Your task to perform on an android device: What is the recent news? Image 0: 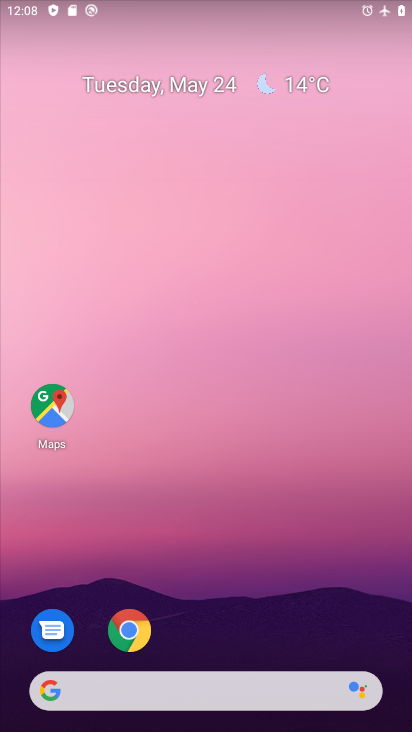
Step 0: drag from (377, 616) to (378, 206)
Your task to perform on an android device: What is the recent news? Image 1: 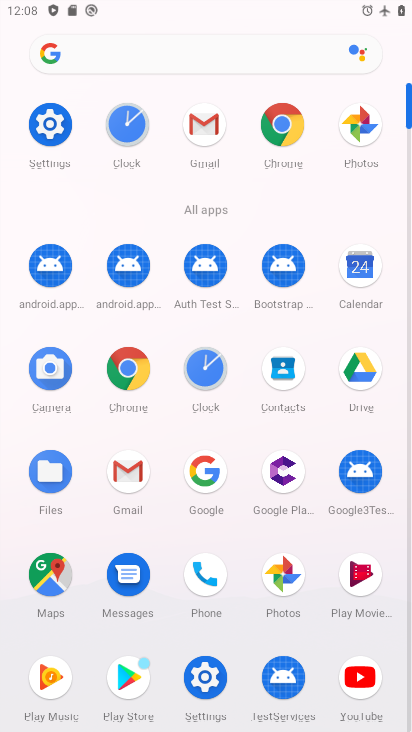
Step 1: click (148, 356)
Your task to perform on an android device: What is the recent news? Image 2: 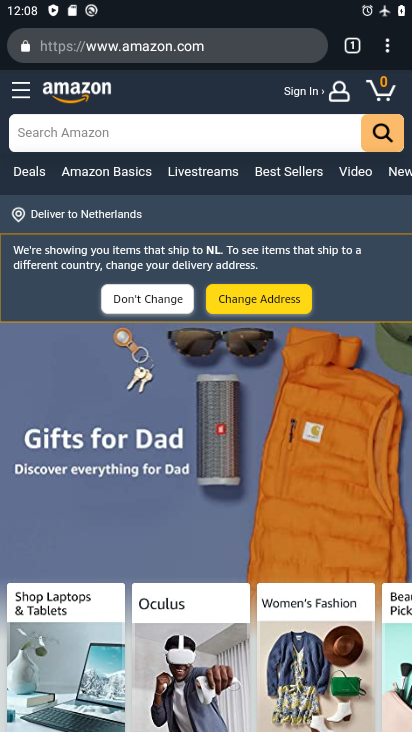
Step 2: click (156, 51)
Your task to perform on an android device: What is the recent news? Image 3: 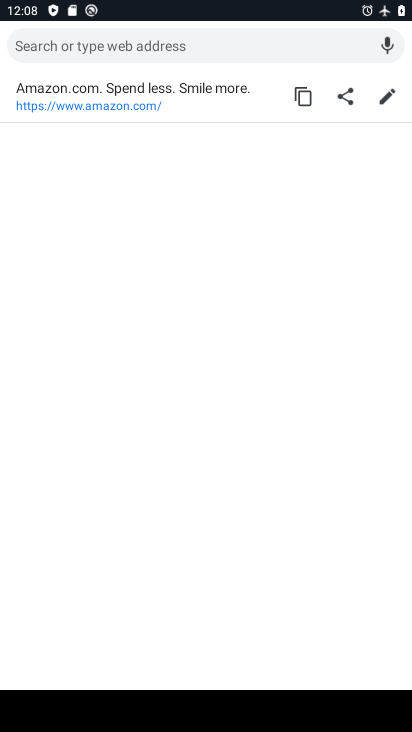
Step 3: type "what is the recent news"
Your task to perform on an android device: What is the recent news? Image 4: 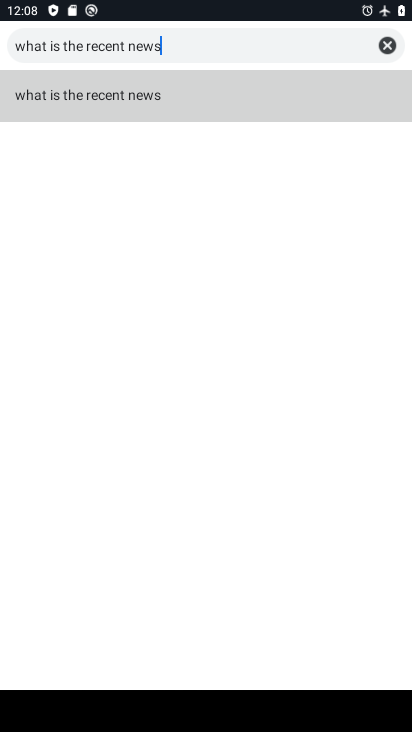
Step 4: click (227, 113)
Your task to perform on an android device: What is the recent news? Image 5: 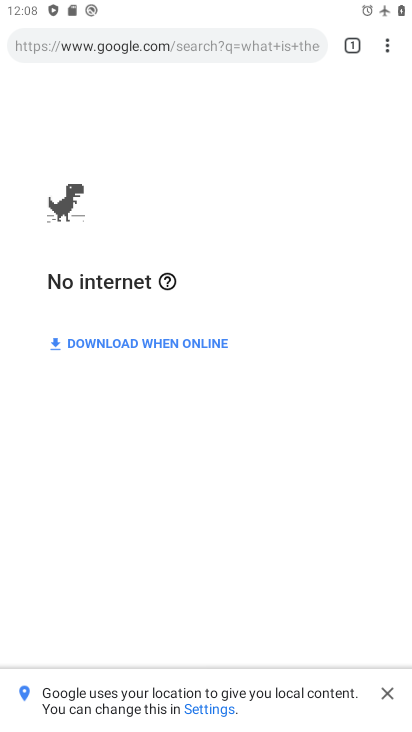
Step 5: task complete